Your task to perform on an android device: change timer sound Image 0: 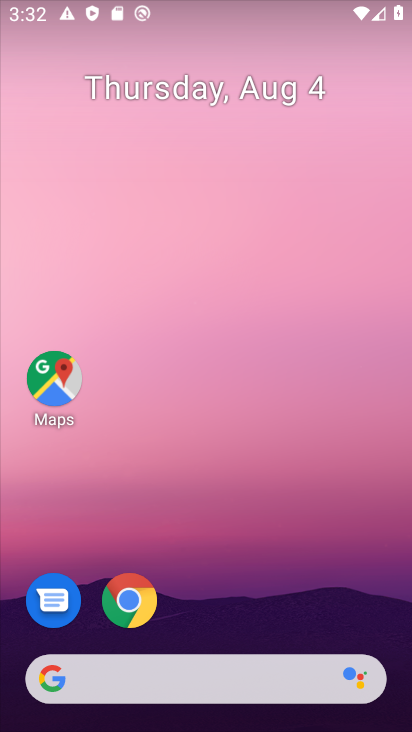
Step 0: press home button
Your task to perform on an android device: change timer sound Image 1: 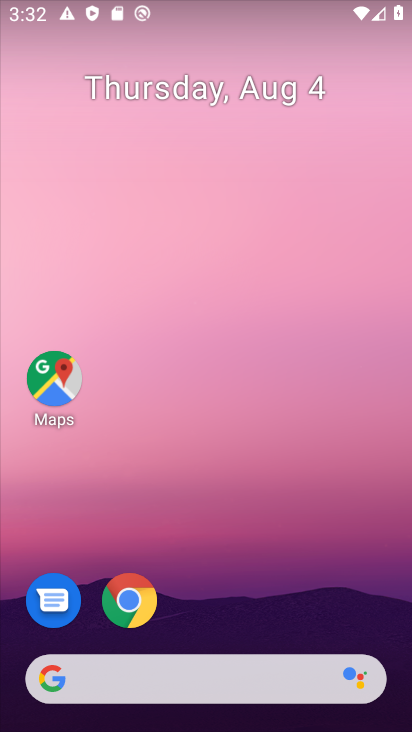
Step 1: click (259, 164)
Your task to perform on an android device: change timer sound Image 2: 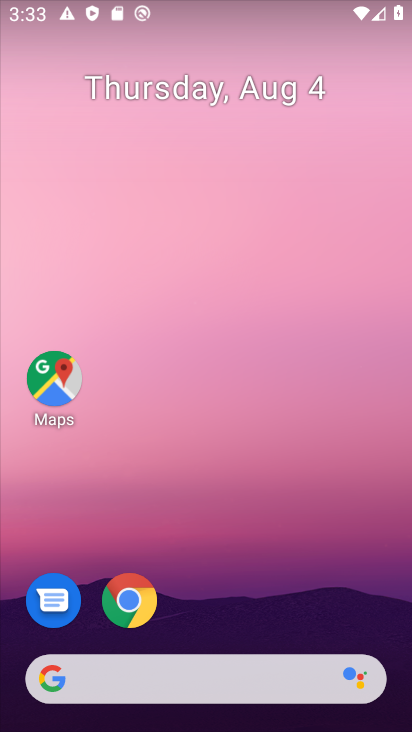
Step 2: drag from (219, 609) to (239, 3)
Your task to perform on an android device: change timer sound Image 3: 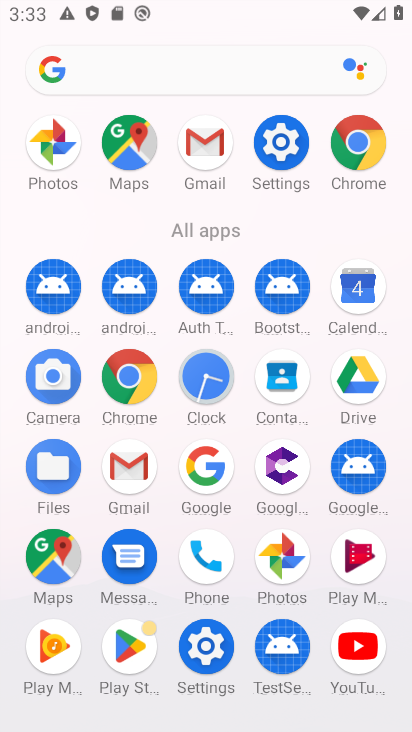
Step 3: click (196, 374)
Your task to perform on an android device: change timer sound Image 4: 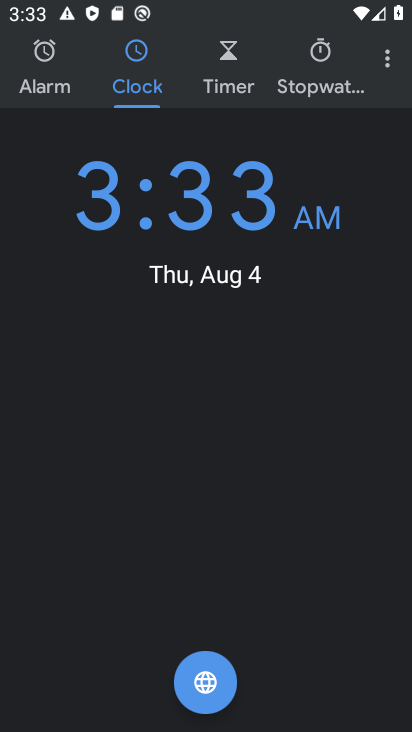
Step 4: click (392, 55)
Your task to perform on an android device: change timer sound Image 5: 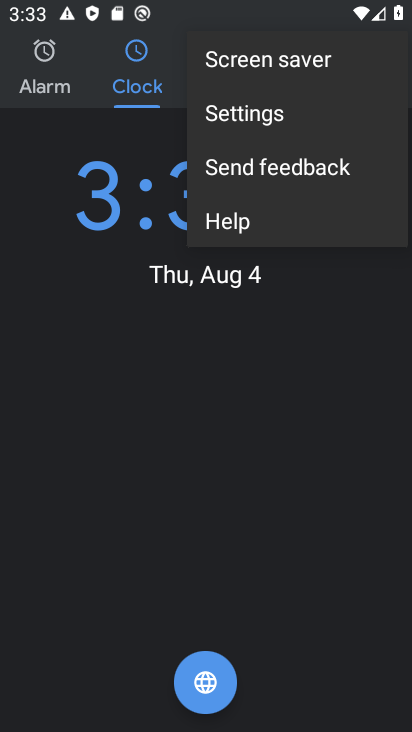
Step 5: click (278, 124)
Your task to perform on an android device: change timer sound Image 6: 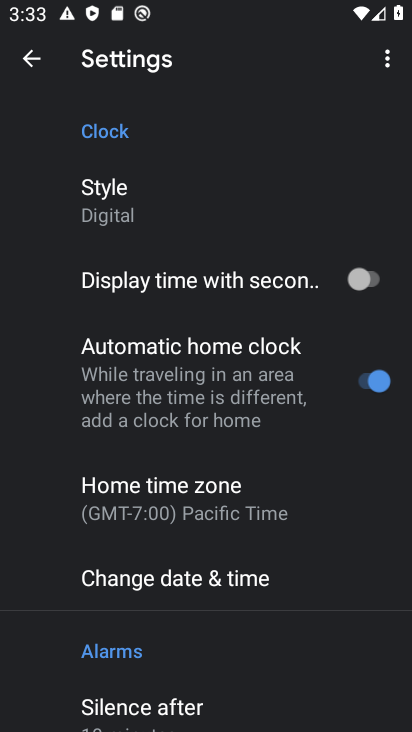
Step 6: drag from (200, 578) to (238, 197)
Your task to perform on an android device: change timer sound Image 7: 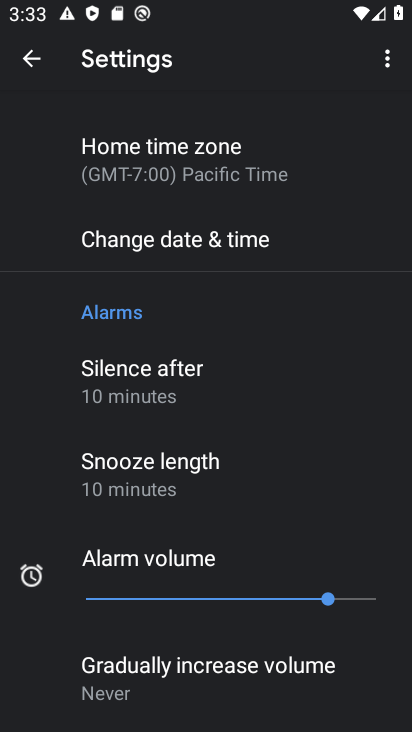
Step 7: drag from (296, 331) to (281, 599)
Your task to perform on an android device: change timer sound Image 8: 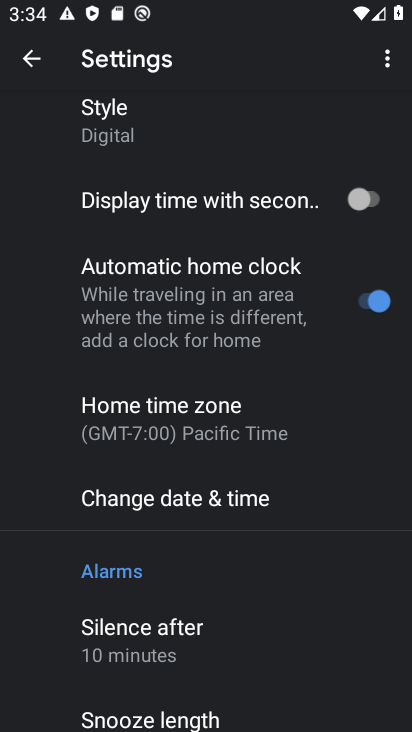
Step 8: drag from (255, 690) to (332, 340)
Your task to perform on an android device: change timer sound Image 9: 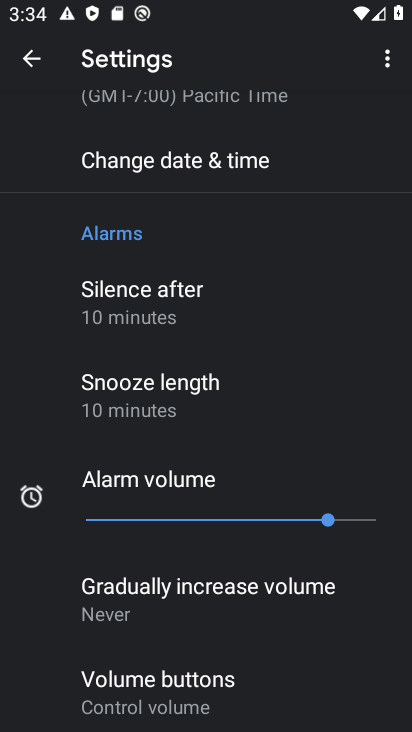
Step 9: drag from (328, 301) to (300, 583)
Your task to perform on an android device: change timer sound Image 10: 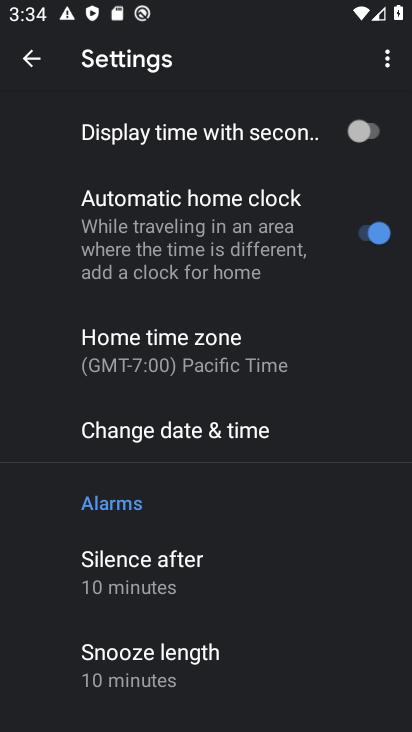
Step 10: drag from (328, 297) to (322, 662)
Your task to perform on an android device: change timer sound Image 11: 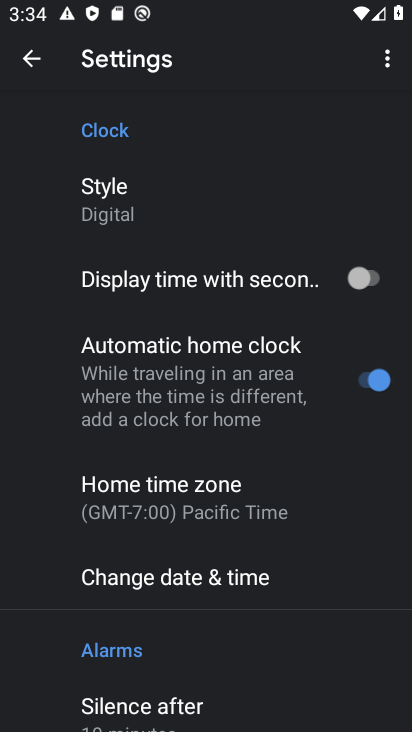
Step 11: drag from (334, 602) to (400, 259)
Your task to perform on an android device: change timer sound Image 12: 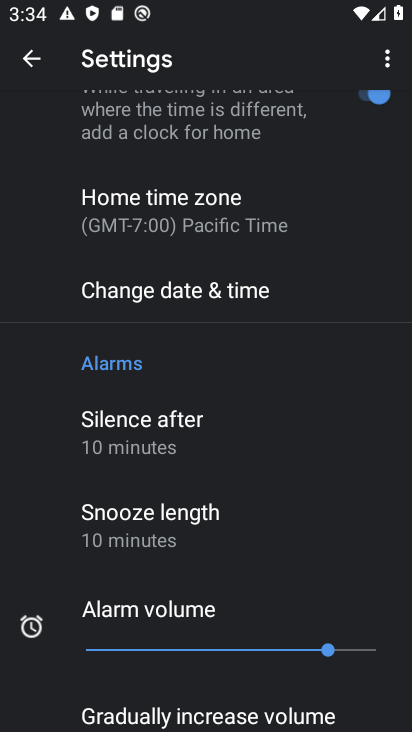
Step 12: drag from (283, 576) to (352, 272)
Your task to perform on an android device: change timer sound Image 13: 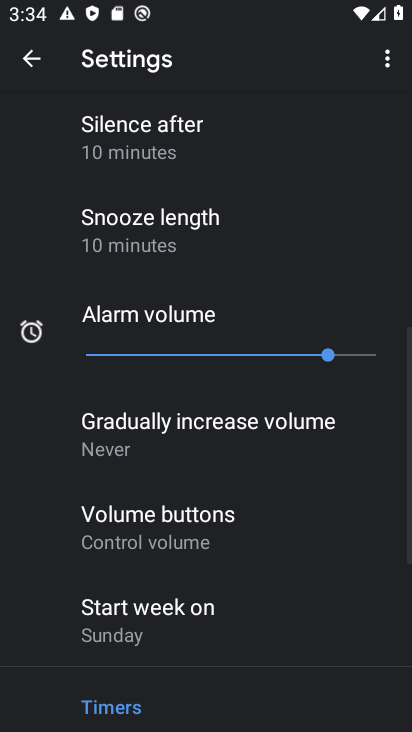
Step 13: drag from (303, 646) to (386, 322)
Your task to perform on an android device: change timer sound Image 14: 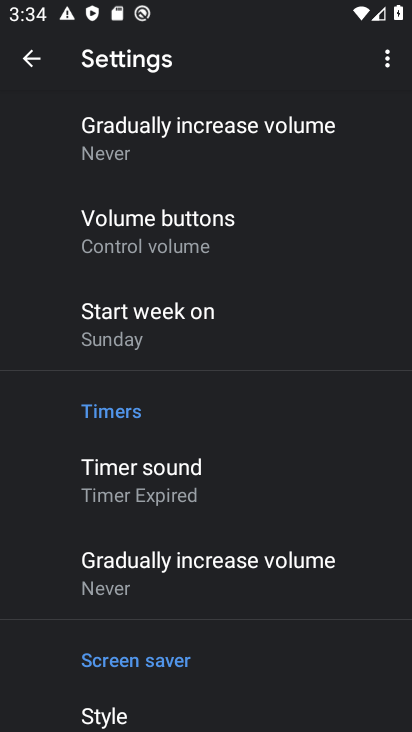
Step 14: click (197, 496)
Your task to perform on an android device: change timer sound Image 15: 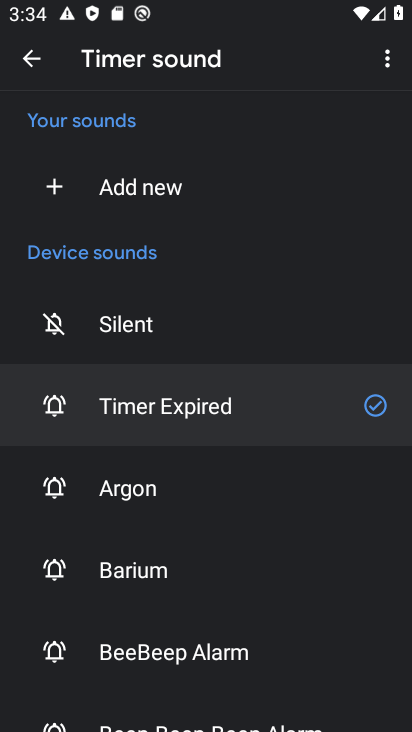
Step 15: click (180, 466)
Your task to perform on an android device: change timer sound Image 16: 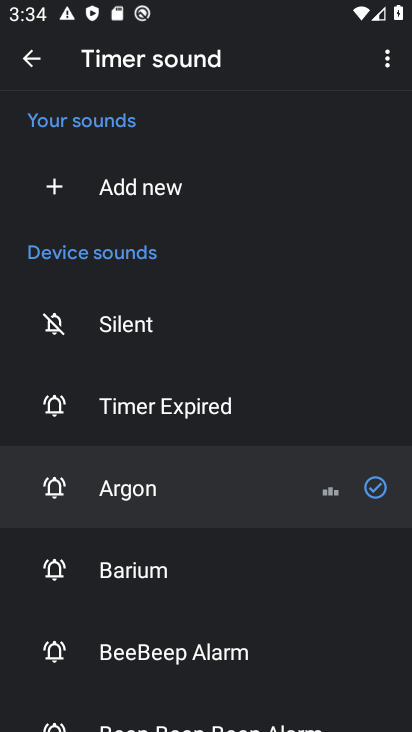
Step 16: task complete